Your task to perform on an android device: What's the weather today? Image 0: 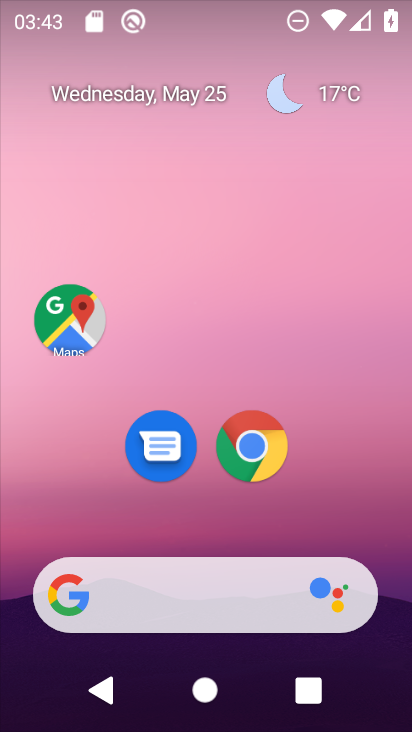
Step 0: click (307, 95)
Your task to perform on an android device: What's the weather today? Image 1: 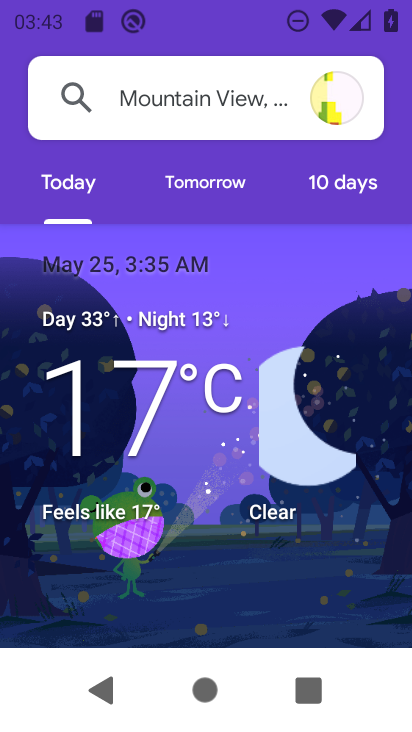
Step 1: task complete